Your task to perform on an android device: check out phone information Image 0: 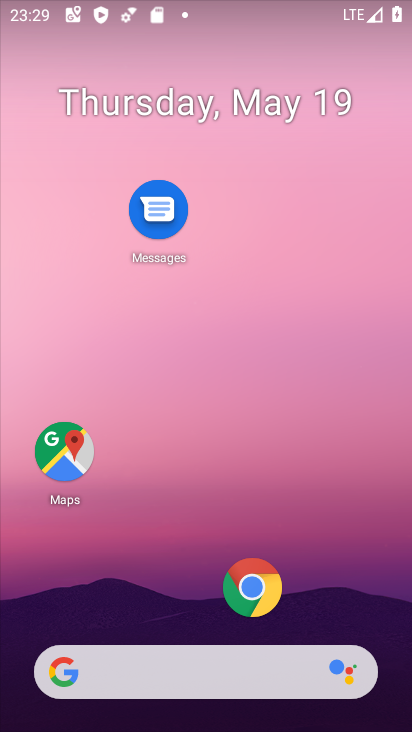
Step 0: drag from (130, 600) to (186, 125)
Your task to perform on an android device: check out phone information Image 1: 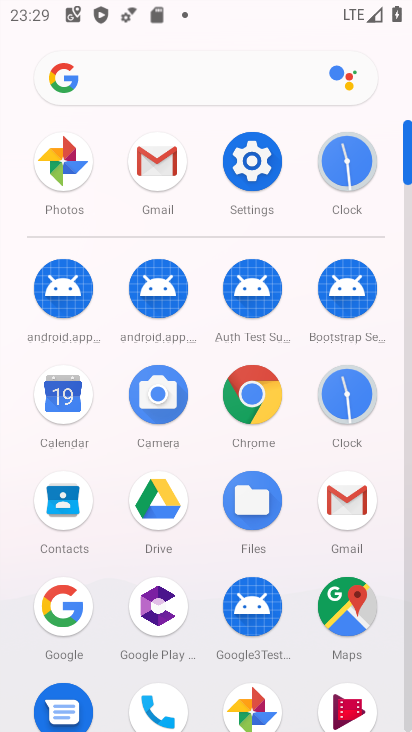
Step 1: click (261, 175)
Your task to perform on an android device: check out phone information Image 2: 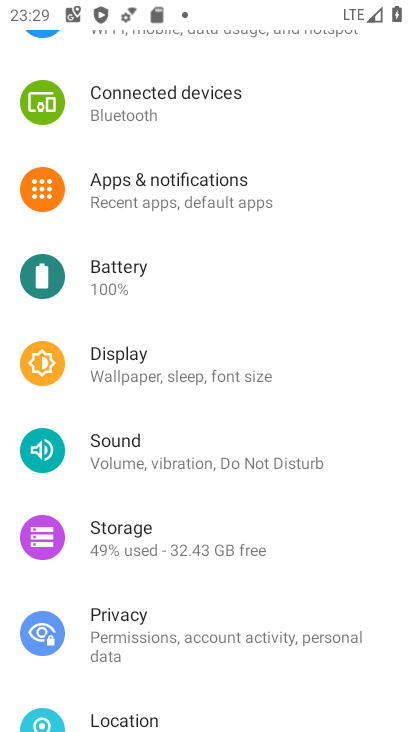
Step 2: drag from (80, 667) to (135, 364)
Your task to perform on an android device: check out phone information Image 3: 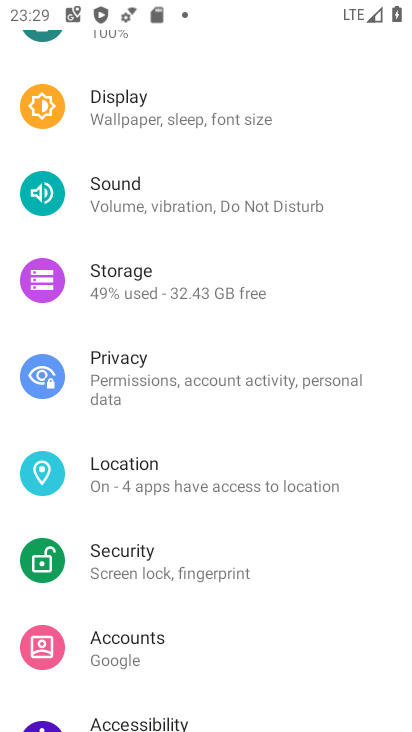
Step 3: drag from (132, 695) to (210, 299)
Your task to perform on an android device: check out phone information Image 4: 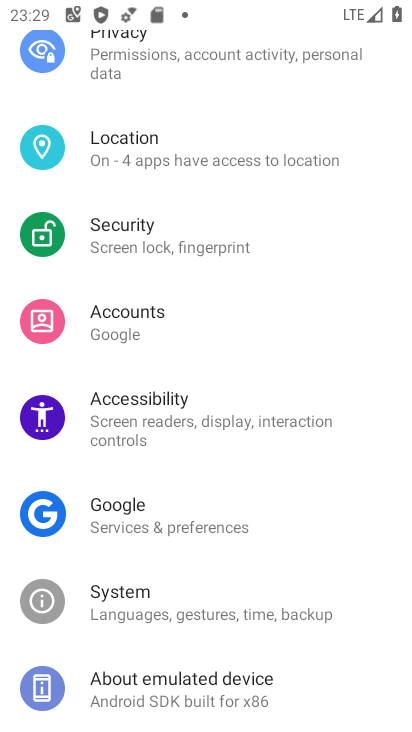
Step 4: drag from (166, 682) to (251, 360)
Your task to perform on an android device: check out phone information Image 5: 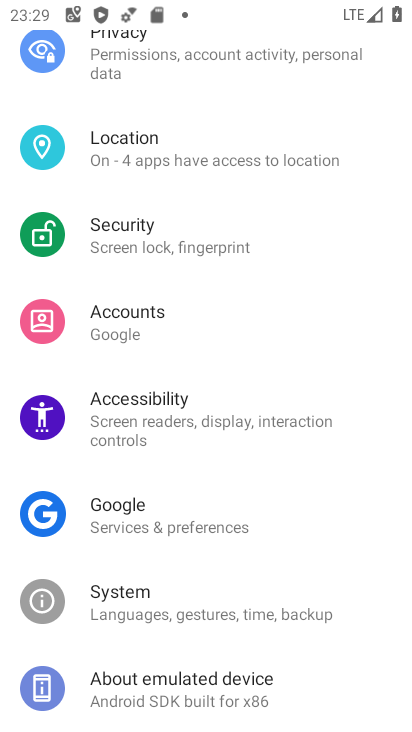
Step 5: click (156, 699)
Your task to perform on an android device: check out phone information Image 6: 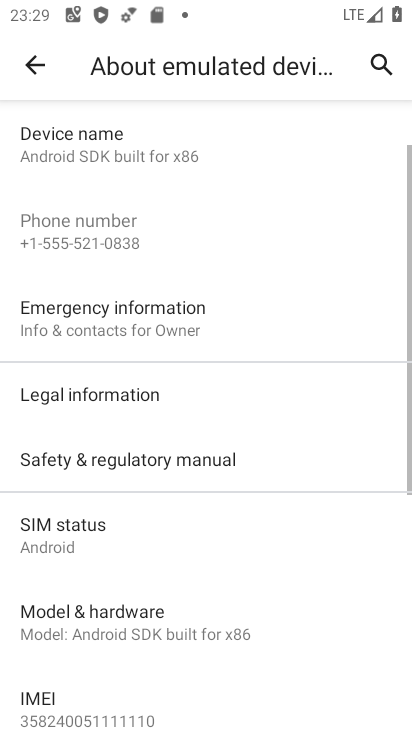
Step 6: task complete